Your task to perform on an android device: show emergency info Image 0: 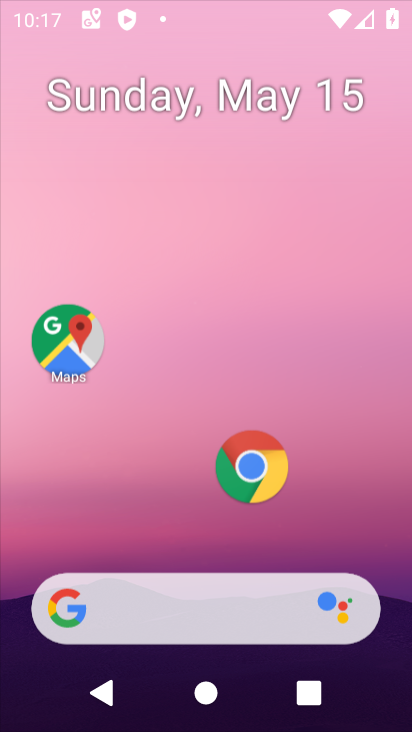
Step 0: click (384, 70)
Your task to perform on an android device: show emergency info Image 1: 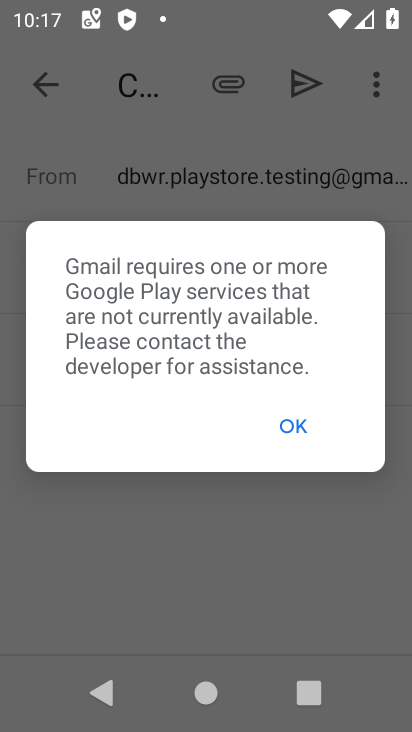
Step 1: press home button
Your task to perform on an android device: show emergency info Image 2: 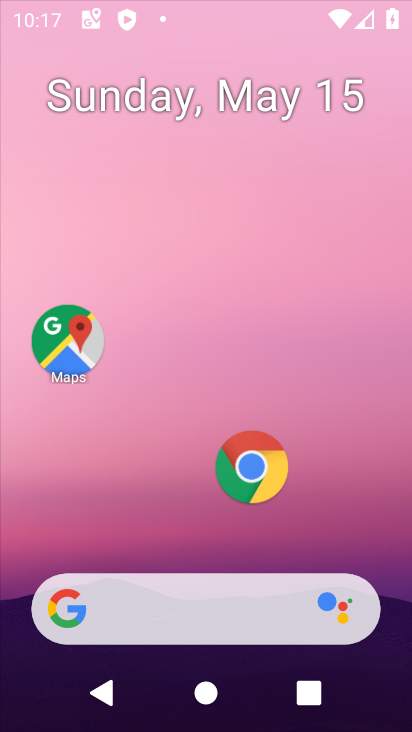
Step 2: drag from (199, 615) to (277, 152)
Your task to perform on an android device: show emergency info Image 3: 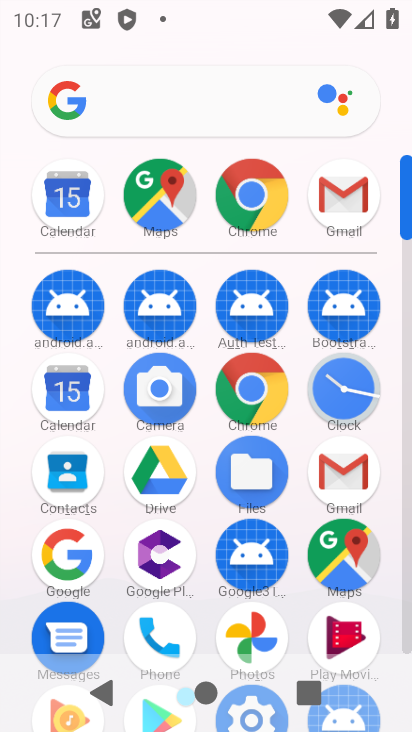
Step 3: drag from (305, 605) to (256, 265)
Your task to perform on an android device: show emergency info Image 4: 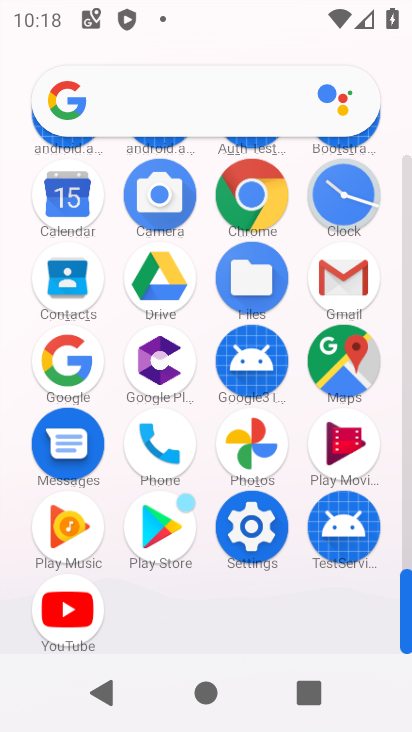
Step 4: click (256, 538)
Your task to perform on an android device: show emergency info Image 5: 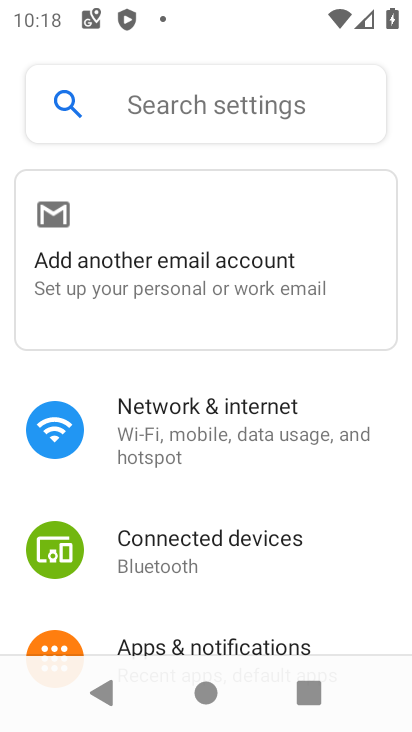
Step 5: drag from (227, 521) to (204, 18)
Your task to perform on an android device: show emergency info Image 6: 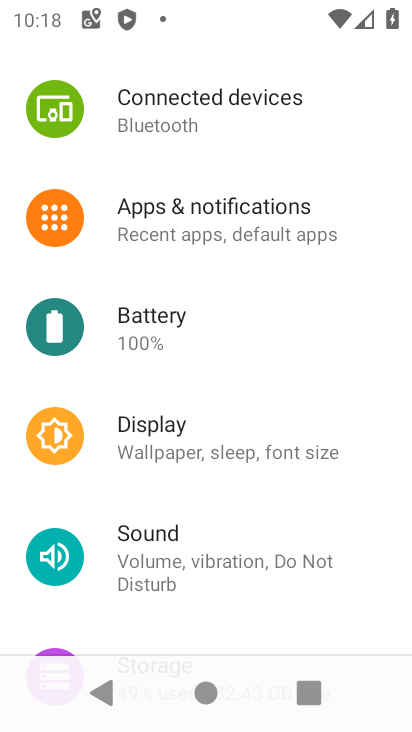
Step 6: drag from (207, 541) to (272, 133)
Your task to perform on an android device: show emergency info Image 7: 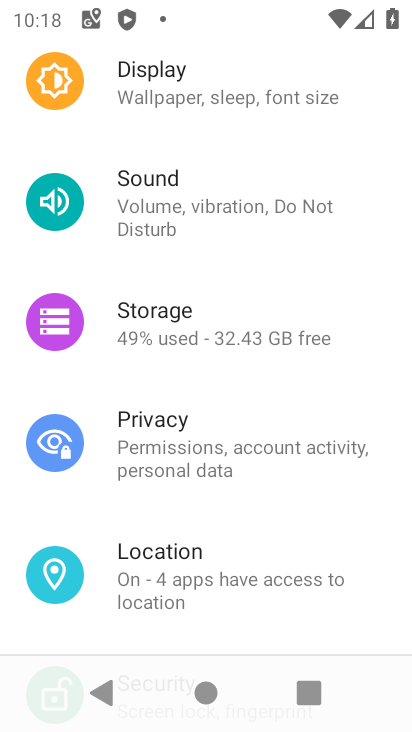
Step 7: drag from (211, 560) to (220, 155)
Your task to perform on an android device: show emergency info Image 8: 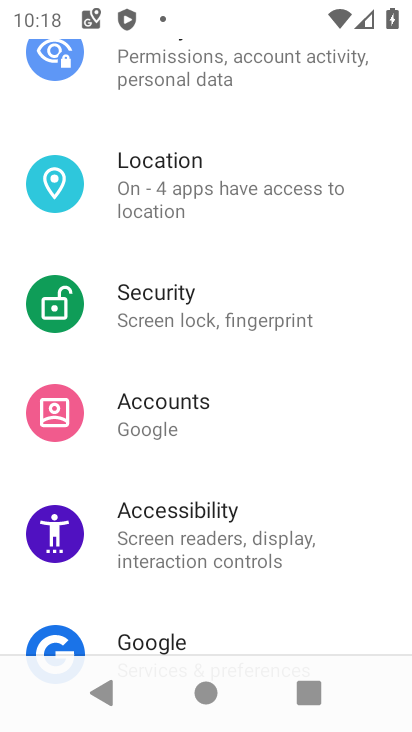
Step 8: drag from (239, 577) to (229, 216)
Your task to perform on an android device: show emergency info Image 9: 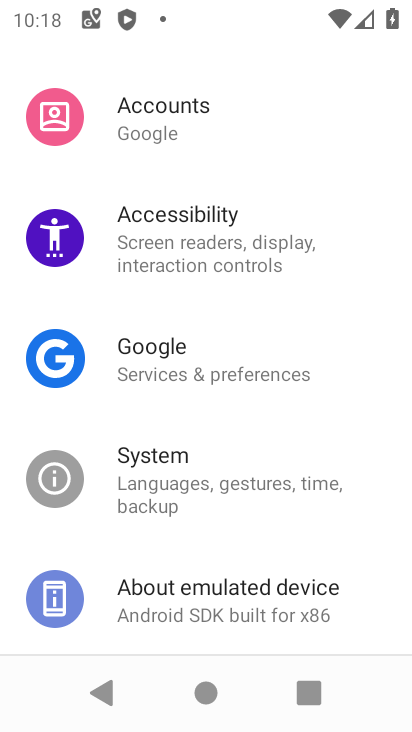
Step 9: click (207, 580)
Your task to perform on an android device: show emergency info Image 10: 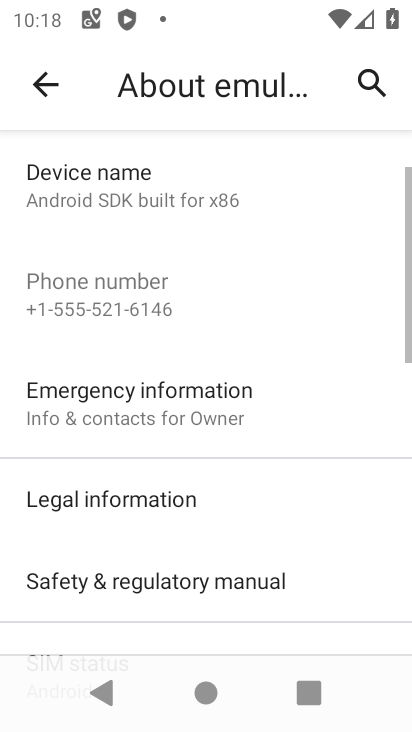
Step 10: click (204, 421)
Your task to perform on an android device: show emergency info Image 11: 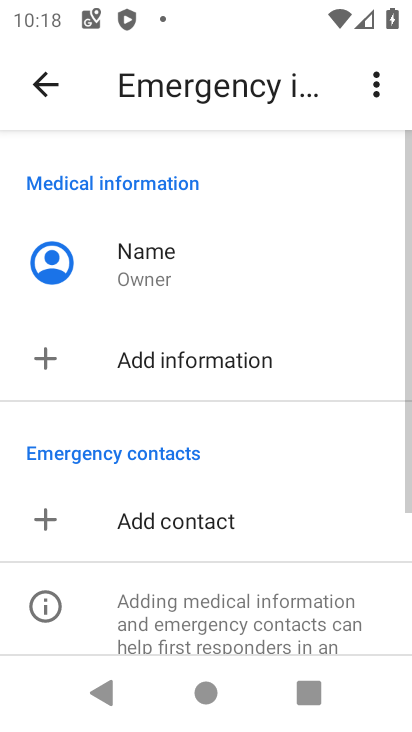
Step 11: task complete